Your task to perform on an android device: Go to internet settings Image 0: 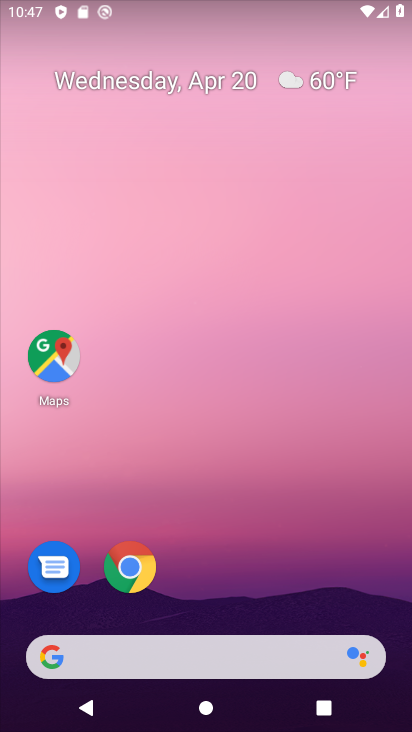
Step 0: drag from (298, 622) to (233, 76)
Your task to perform on an android device: Go to internet settings Image 1: 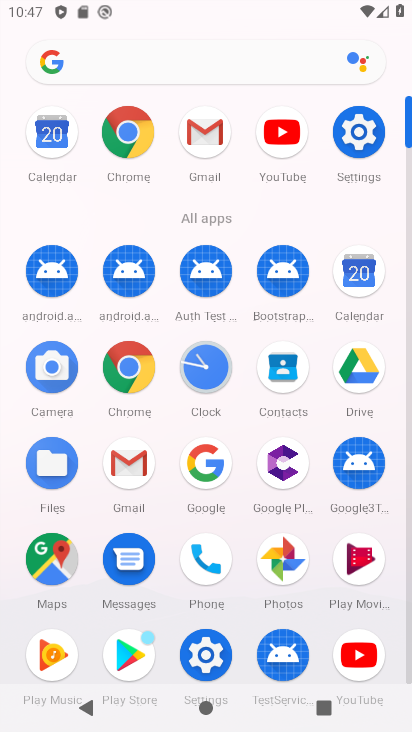
Step 1: click (376, 149)
Your task to perform on an android device: Go to internet settings Image 2: 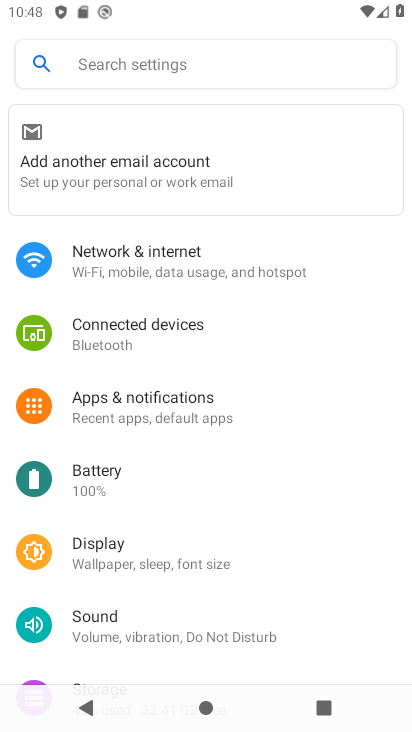
Step 2: click (162, 278)
Your task to perform on an android device: Go to internet settings Image 3: 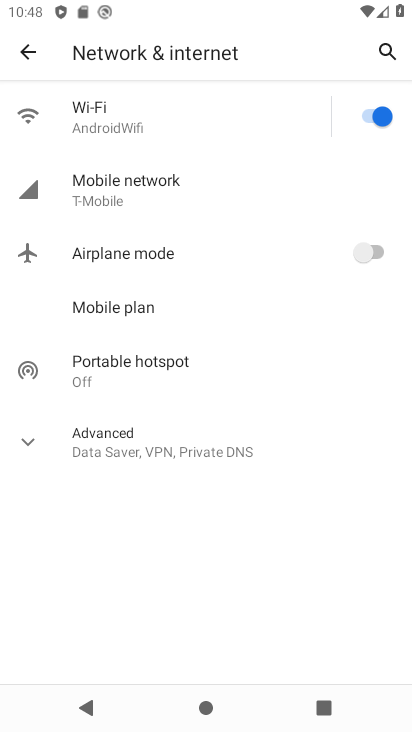
Step 3: task complete